Your task to perform on an android device: turn off notifications in google photos Image 0: 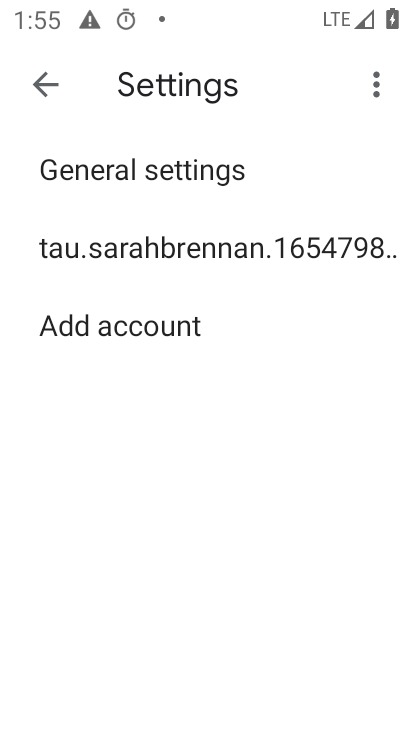
Step 0: press home button
Your task to perform on an android device: turn off notifications in google photos Image 1: 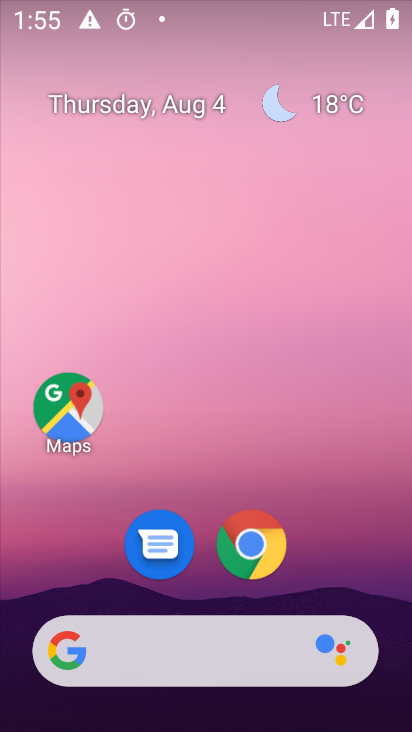
Step 1: drag from (368, 701) to (272, 103)
Your task to perform on an android device: turn off notifications in google photos Image 2: 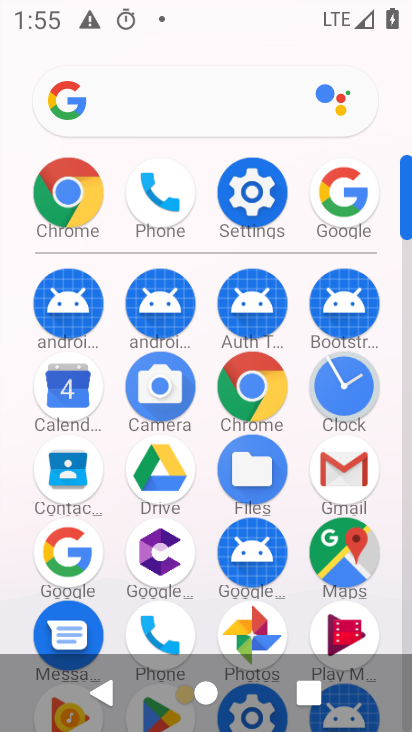
Step 2: click (245, 621)
Your task to perform on an android device: turn off notifications in google photos Image 3: 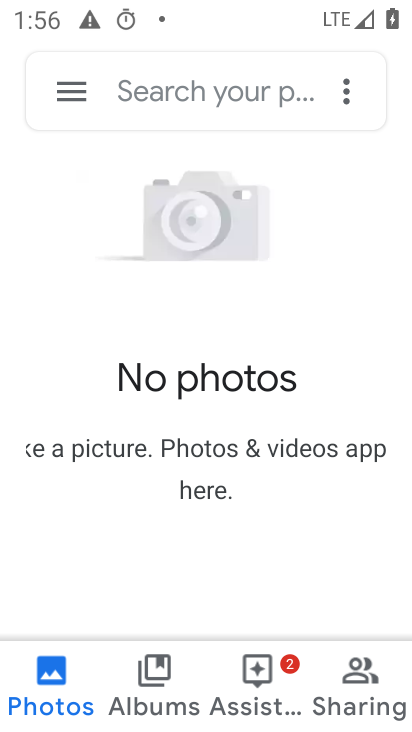
Step 3: click (64, 89)
Your task to perform on an android device: turn off notifications in google photos Image 4: 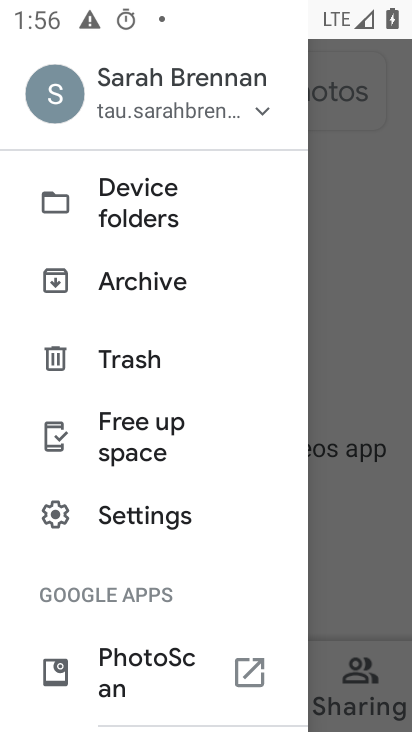
Step 4: click (119, 515)
Your task to perform on an android device: turn off notifications in google photos Image 5: 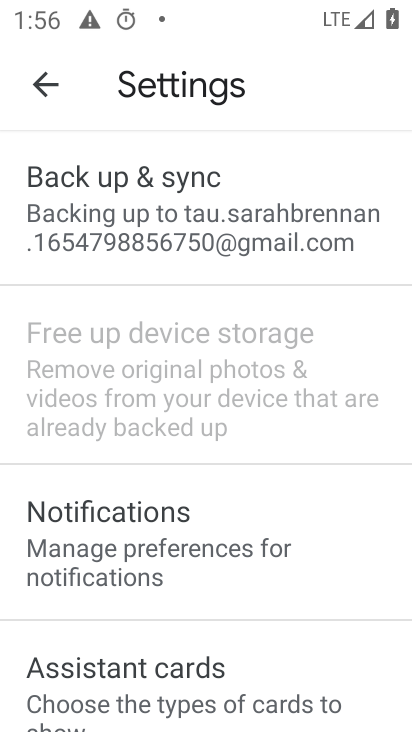
Step 5: drag from (247, 598) to (257, 265)
Your task to perform on an android device: turn off notifications in google photos Image 6: 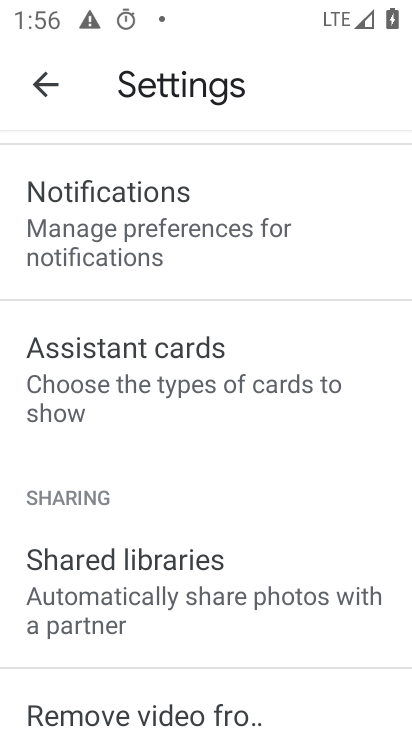
Step 6: click (107, 237)
Your task to perform on an android device: turn off notifications in google photos Image 7: 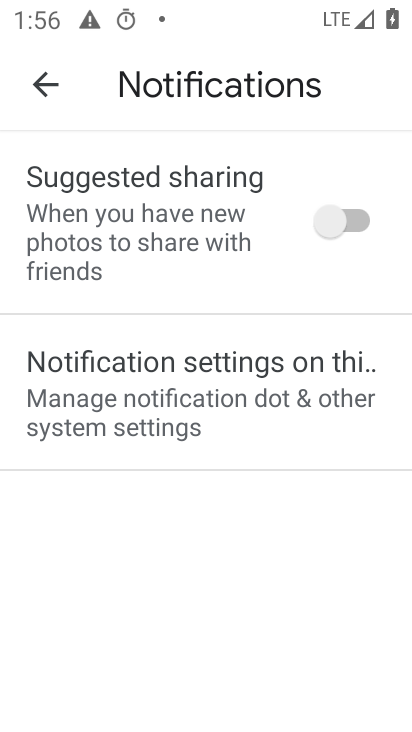
Step 7: click (56, 388)
Your task to perform on an android device: turn off notifications in google photos Image 8: 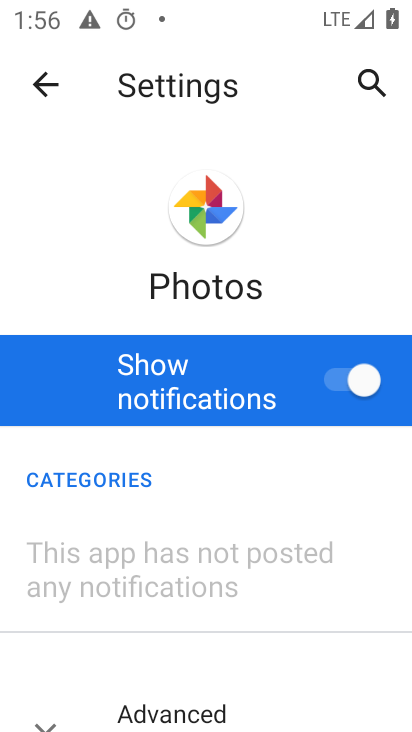
Step 8: click (343, 375)
Your task to perform on an android device: turn off notifications in google photos Image 9: 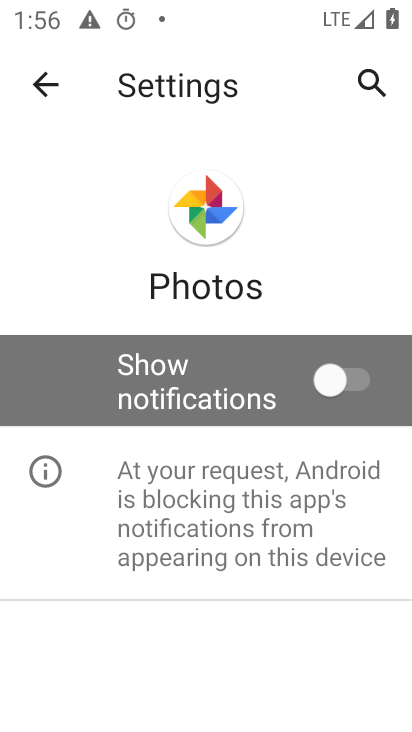
Step 9: task complete